Your task to perform on an android device: turn on airplane mode Image 0: 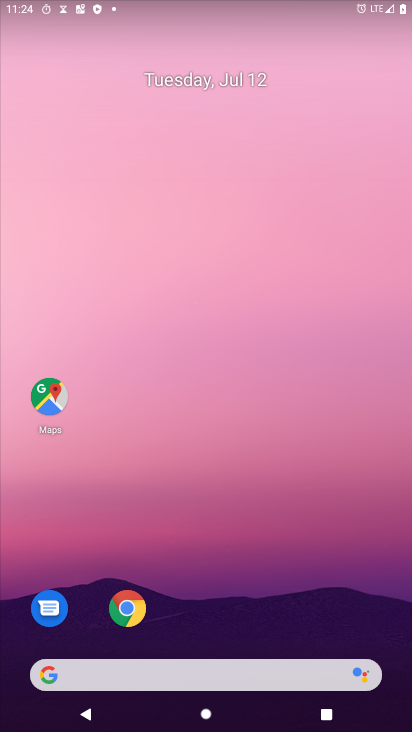
Step 0: drag from (254, 609) to (334, 183)
Your task to perform on an android device: turn on airplane mode Image 1: 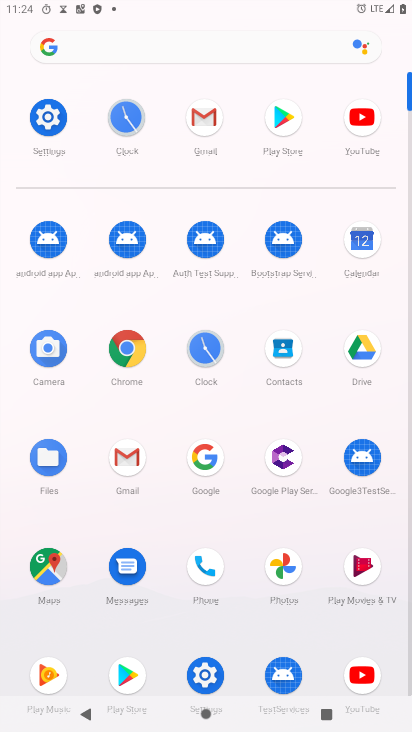
Step 1: click (46, 126)
Your task to perform on an android device: turn on airplane mode Image 2: 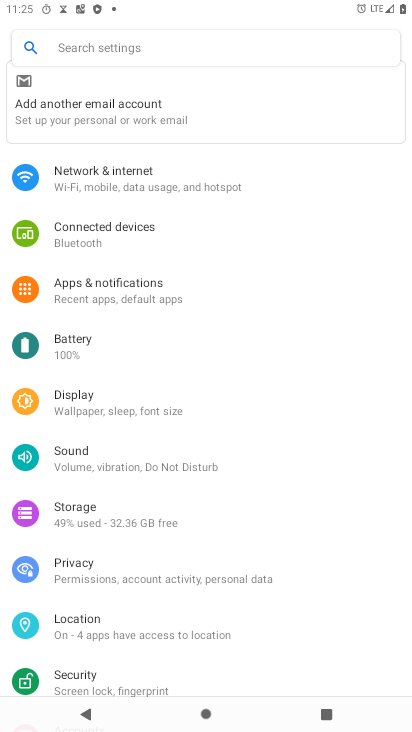
Step 2: click (177, 178)
Your task to perform on an android device: turn on airplane mode Image 3: 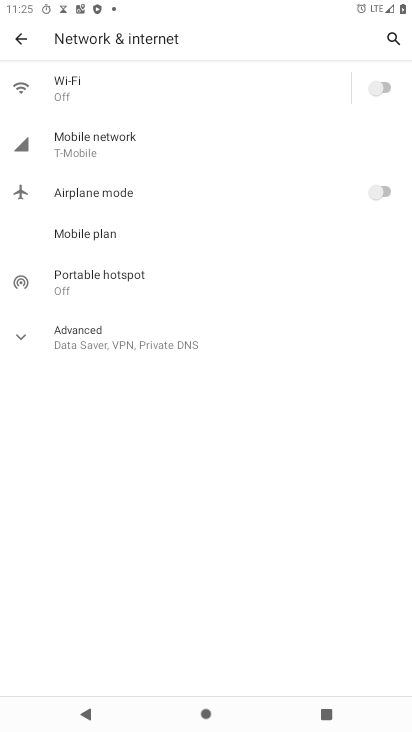
Step 3: click (379, 188)
Your task to perform on an android device: turn on airplane mode Image 4: 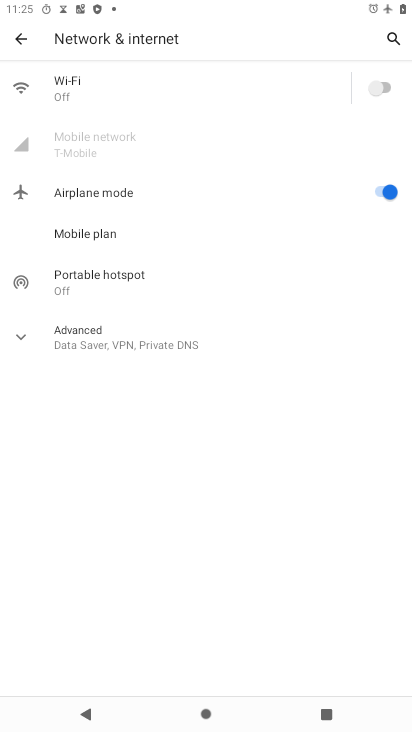
Step 4: task complete